Your task to perform on an android device: delete browsing data in the chrome app Image 0: 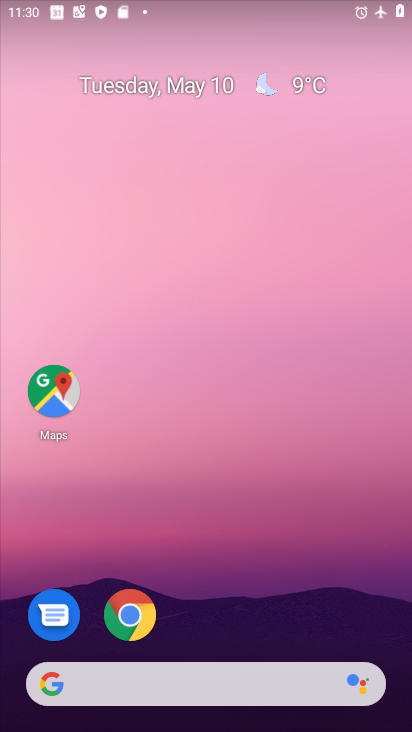
Step 0: press home button
Your task to perform on an android device: delete browsing data in the chrome app Image 1: 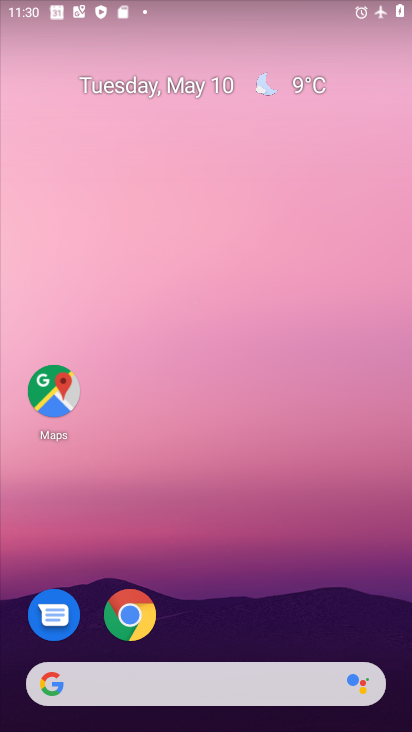
Step 1: click (126, 619)
Your task to perform on an android device: delete browsing data in the chrome app Image 2: 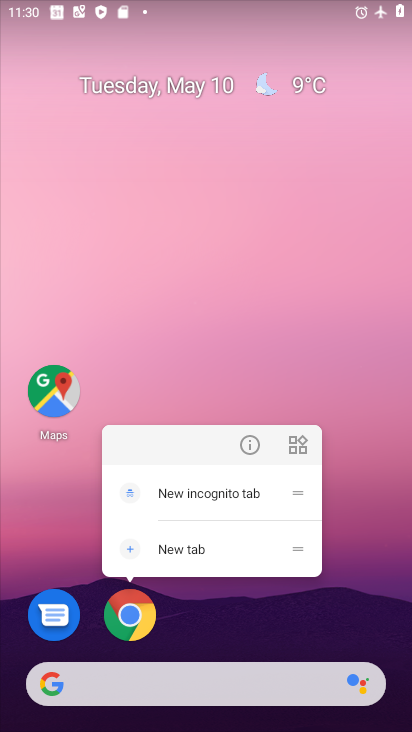
Step 2: click (135, 619)
Your task to perform on an android device: delete browsing data in the chrome app Image 3: 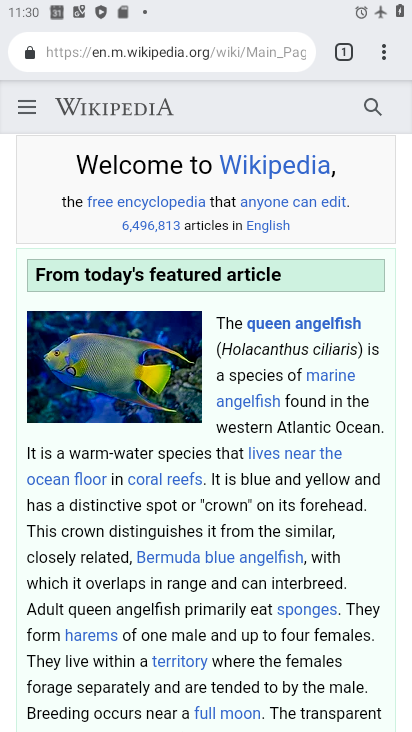
Step 3: click (383, 46)
Your task to perform on an android device: delete browsing data in the chrome app Image 4: 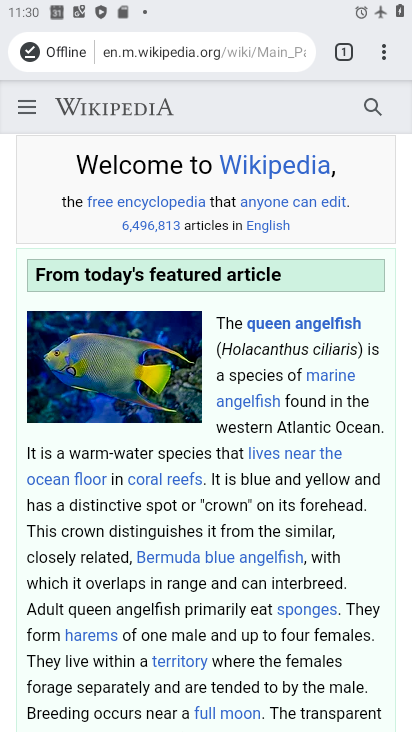
Step 4: click (383, 46)
Your task to perform on an android device: delete browsing data in the chrome app Image 5: 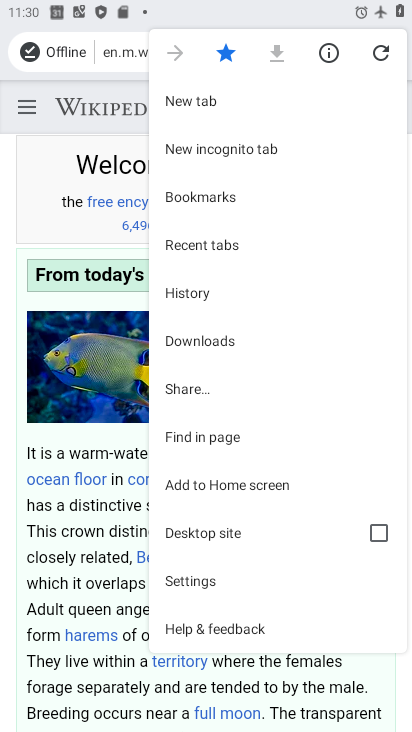
Step 5: click (224, 293)
Your task to perform on an android device: delete browsing data in the chrome app Image 6: 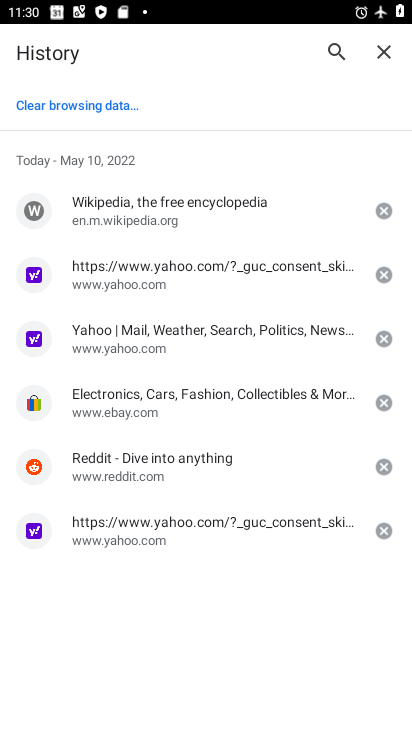
Step 6: click (84, 104)
Your task to perform on an android device: delete browsing data in the chrome app Image 7: 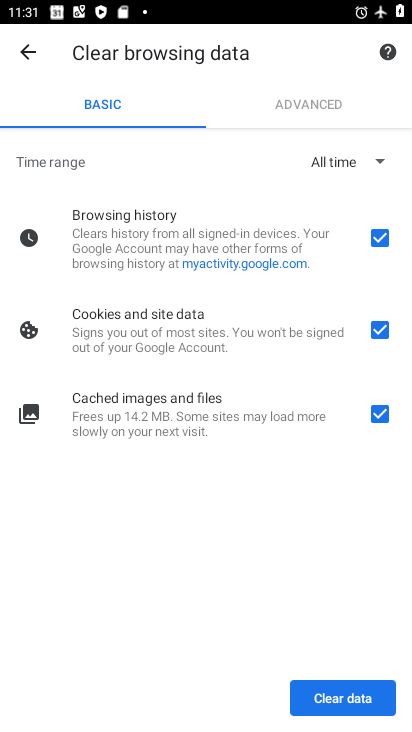
Step 7: click (359, 690)
Your task to perform on an android device: delete browsing data in the chrome app Image 8: 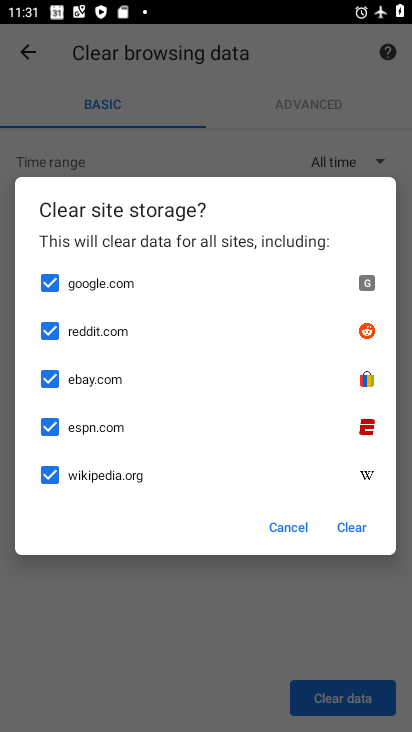
Step 8: click (352, 530)
Your task to perform on an android device: delete browsing data in the chrome app Image 9: 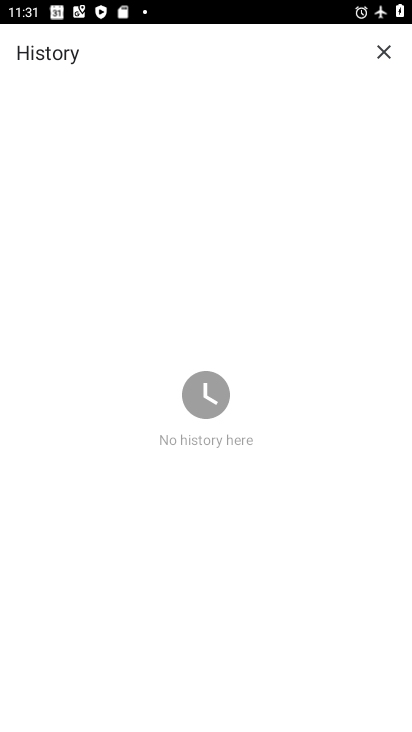
Step 9: task complete